Your task to perform on an android device: What is the news today? Image 0: 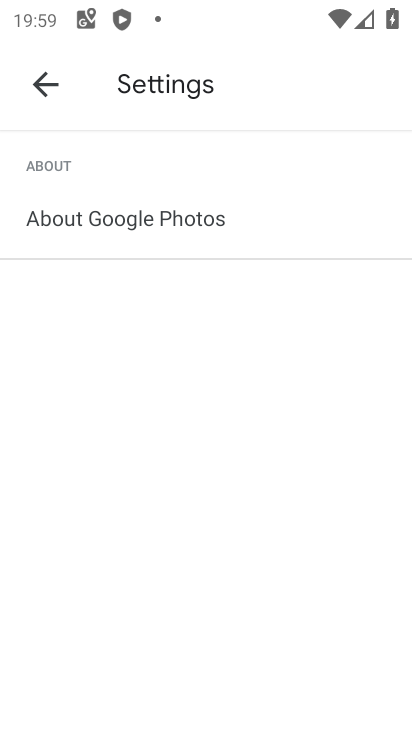
Step 0: press home button
Your task to perform on an android device: What is the news today? Image 1: 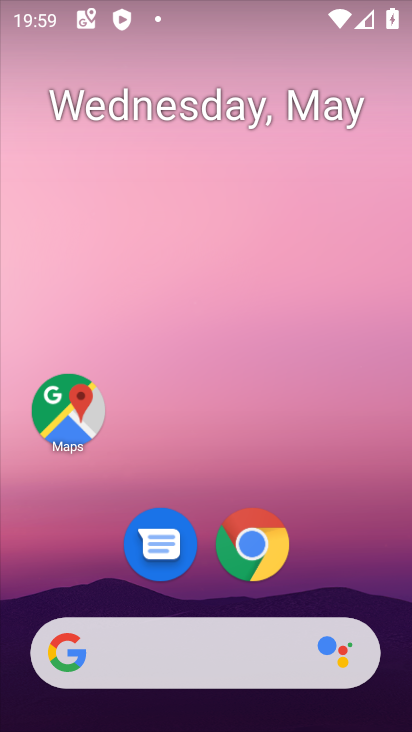
Step 1: click (169, 640)
Your task to perform on an android device: What is the news today? Image 2: 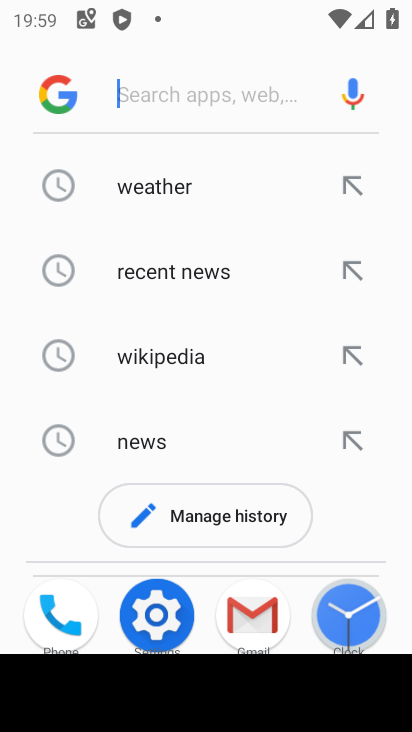
Step 2: click (185, 433)
Your task to perform on an android device: What is the news today? Image 3: 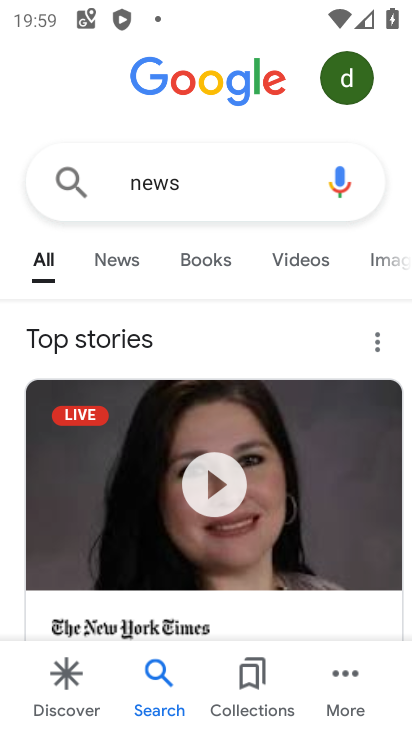
Step 3: task complete